Your task to perform on an android device: remove spam from my inbox in the gmail app Image 0: 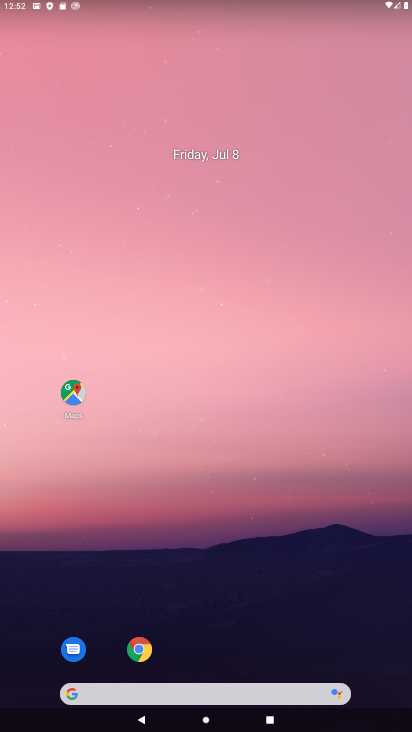
Step 0: drag from (263, 618) to (224, 114)
Your task to perform on an android device: remove spam from my inbox in the gmail app Image 1: 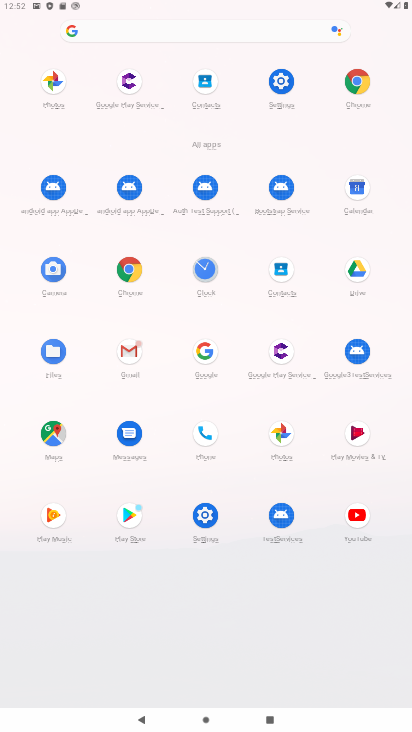
Step 1: click (128, 346)
Your task to perform on an android device: remove spam from my inbox in the gmail app Image 2: 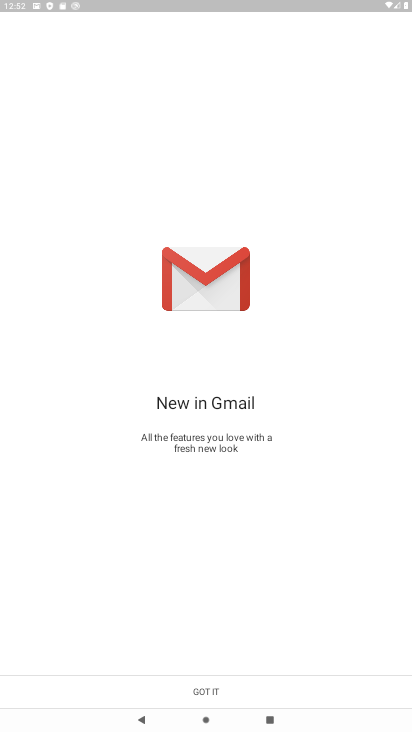
Step 2: click (208, 680)
Your task to perform on an android device: remove spam from my inbox in the gmail app Image 3: 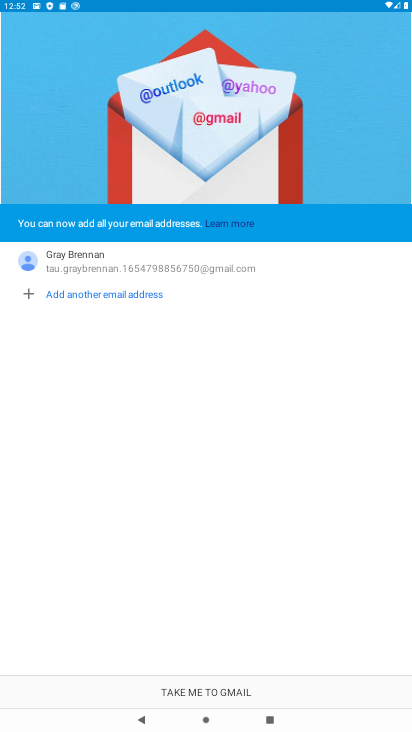
Step 3: click (230, 690)
Your task to perform on an android device: remove spam from my inbox in the gmail app Image 4: 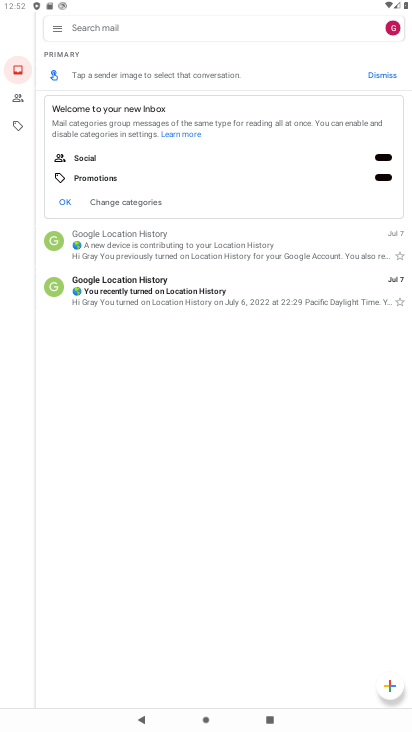
Step 4: click (56, 31)
Your task to perform on an android device: remove spam from my inbox in the gmail app Image 5: 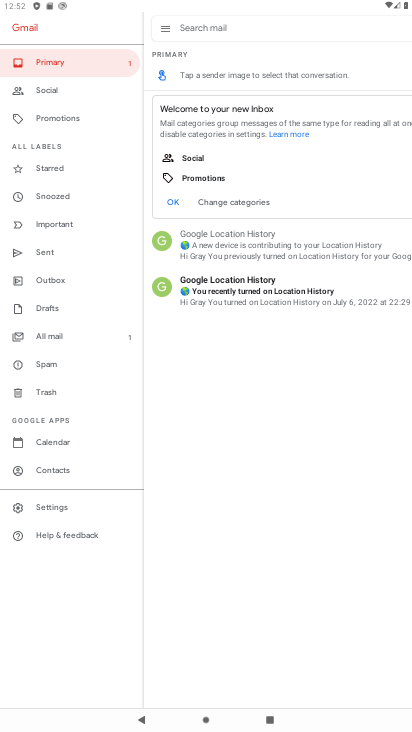
Step 5: click (252, 386)
Your task to perform on an android device: remove spam from my inbox in the gmail app Image 6: 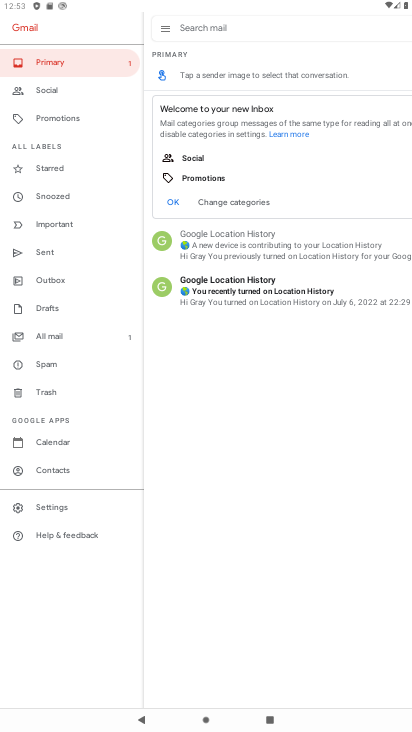
Step 6: task complete